Your task to perform on an android device: Show me recent news Image 0: 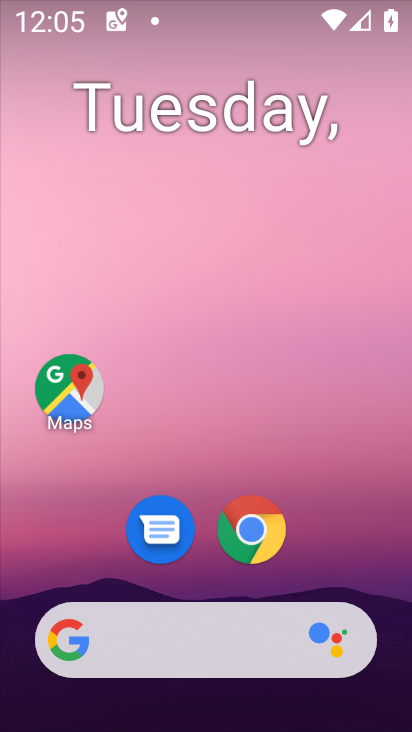
Step 0: click (176, 651)
Your task to perform on an android device: Show me recent news Image 1: 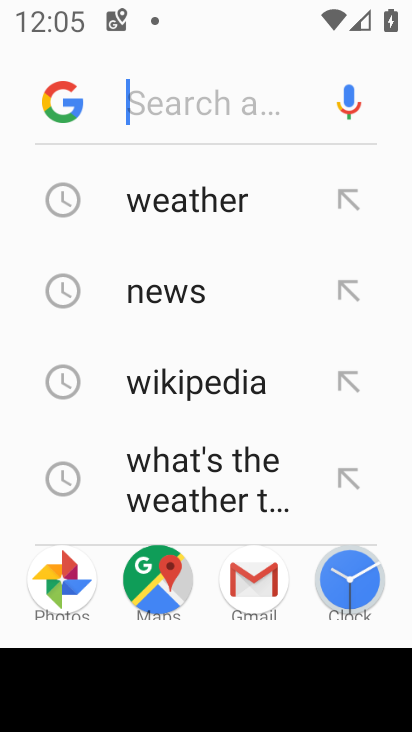
Step 1: type "recent news"
Your task to perform on an android device: Show me recent news Image 2: 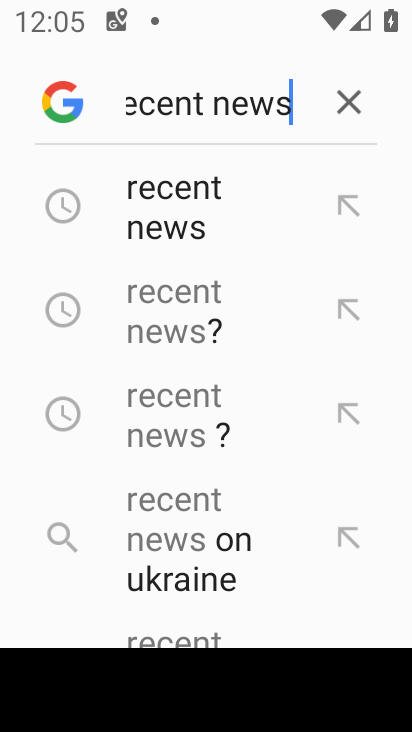
Step 2: click (190, 212)
Your task to perform on an android device: Show me recent news Image 3: 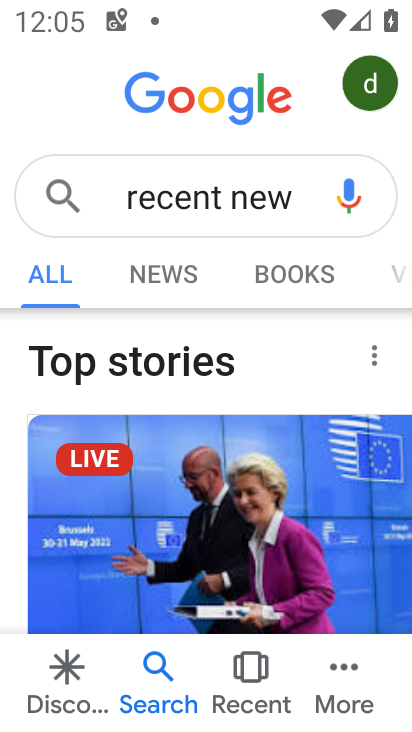
Step 3: task complete